Your task to perform on an android device: Add logitech g910 to the cart on target Image 0: 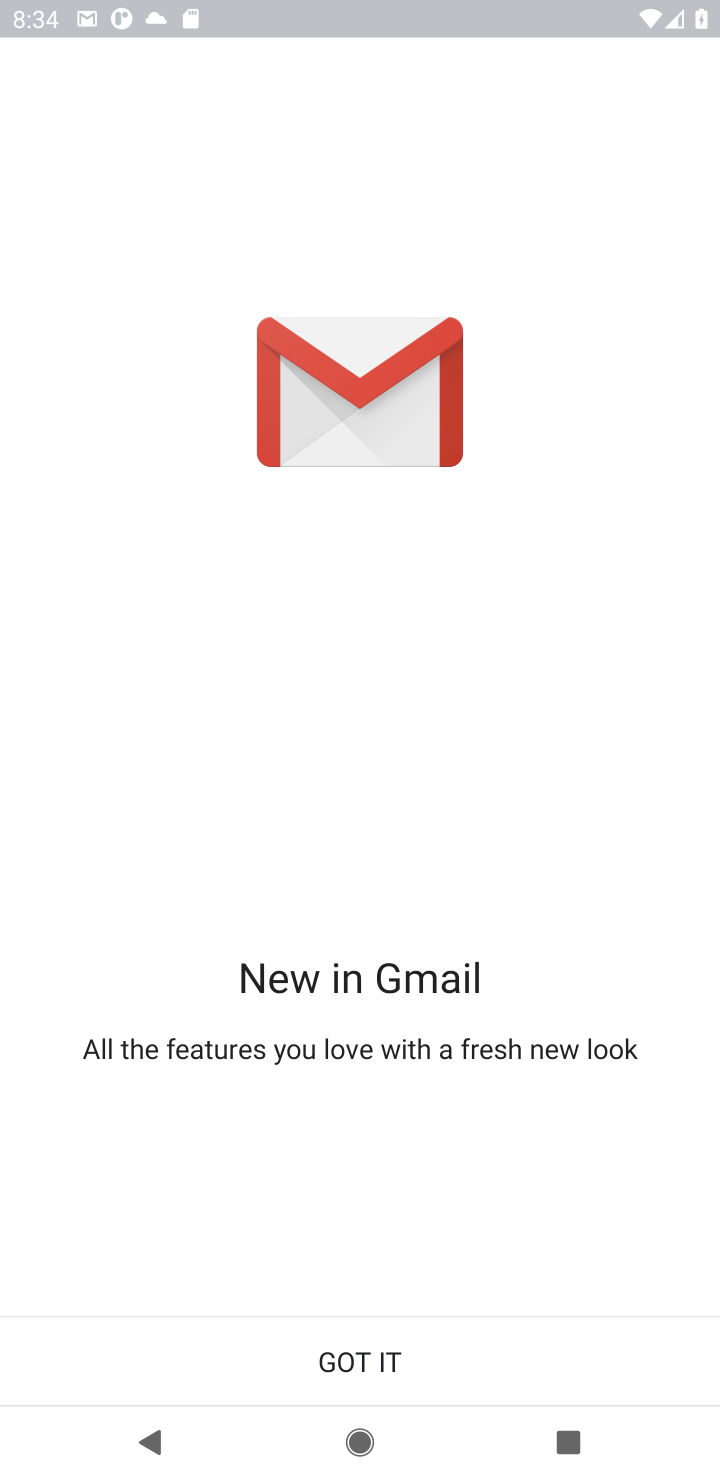
Step 0: press home button
Your task to perform on an android device: Add logitech g910 to the cart on target Image 1: 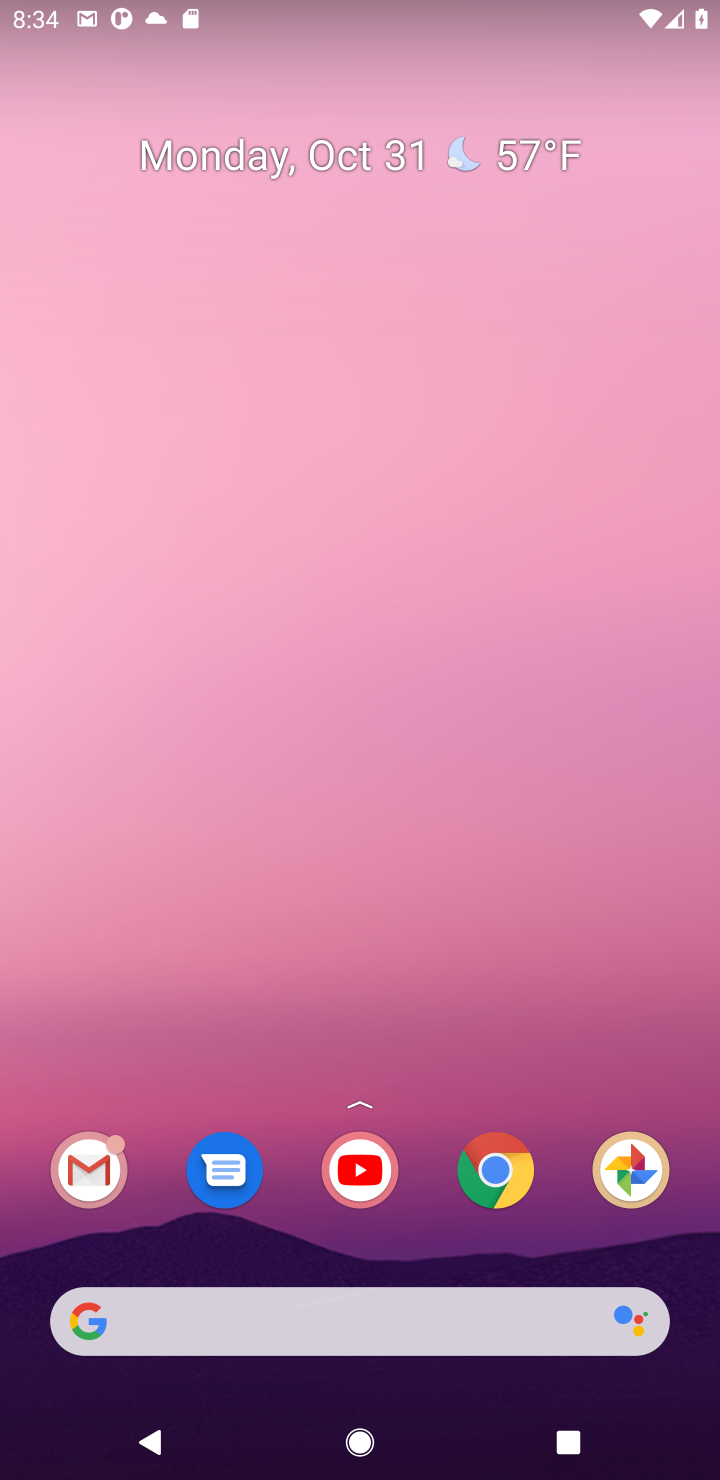
Step 1: click (514, 1153)
Your task to perform on an android device: Add logitech g910 to the cart on target Image 2: 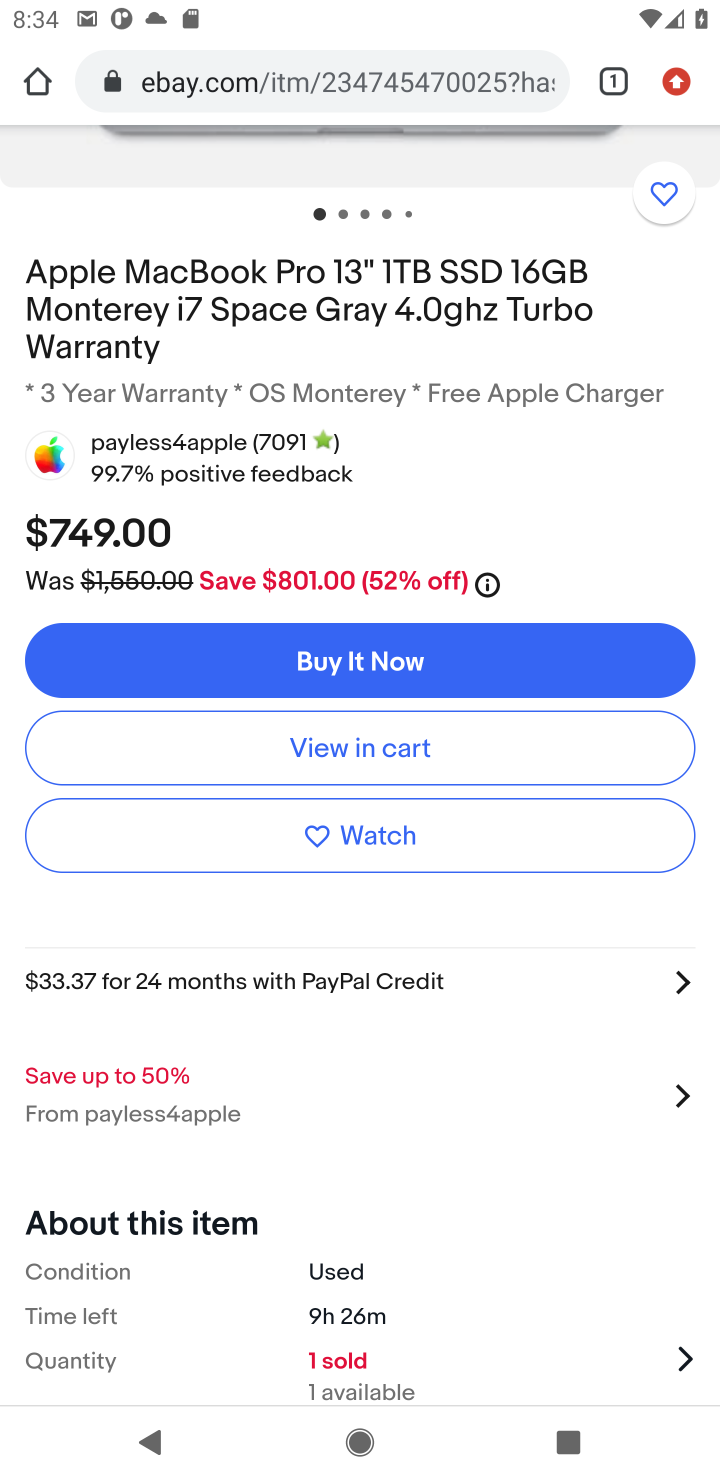
Step 2: click (331, 65)
Your task to perform on an android device: Add logitech g910 to the cart on target Image 3: 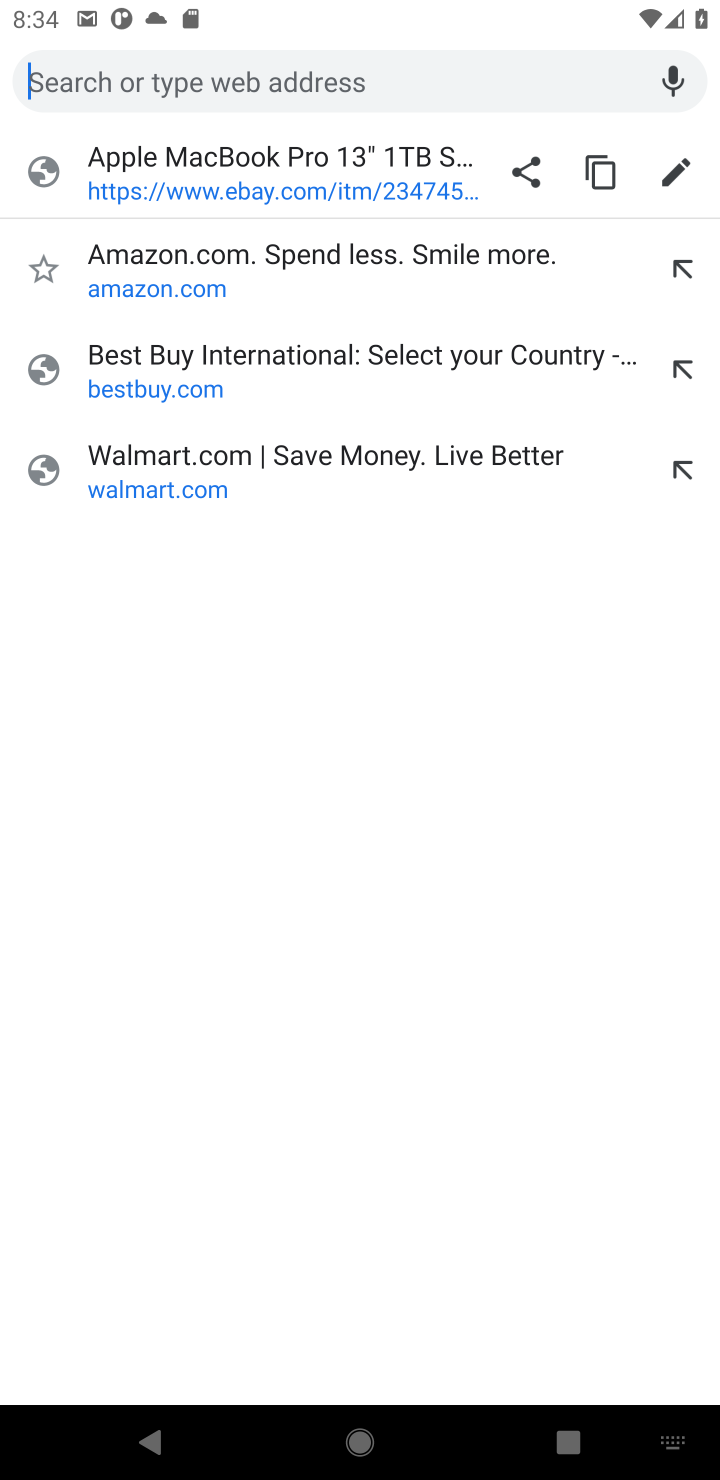
Step 3: type "target"
Your task to perform on an android device: Add logitech g910 to the cart on target Image 4: 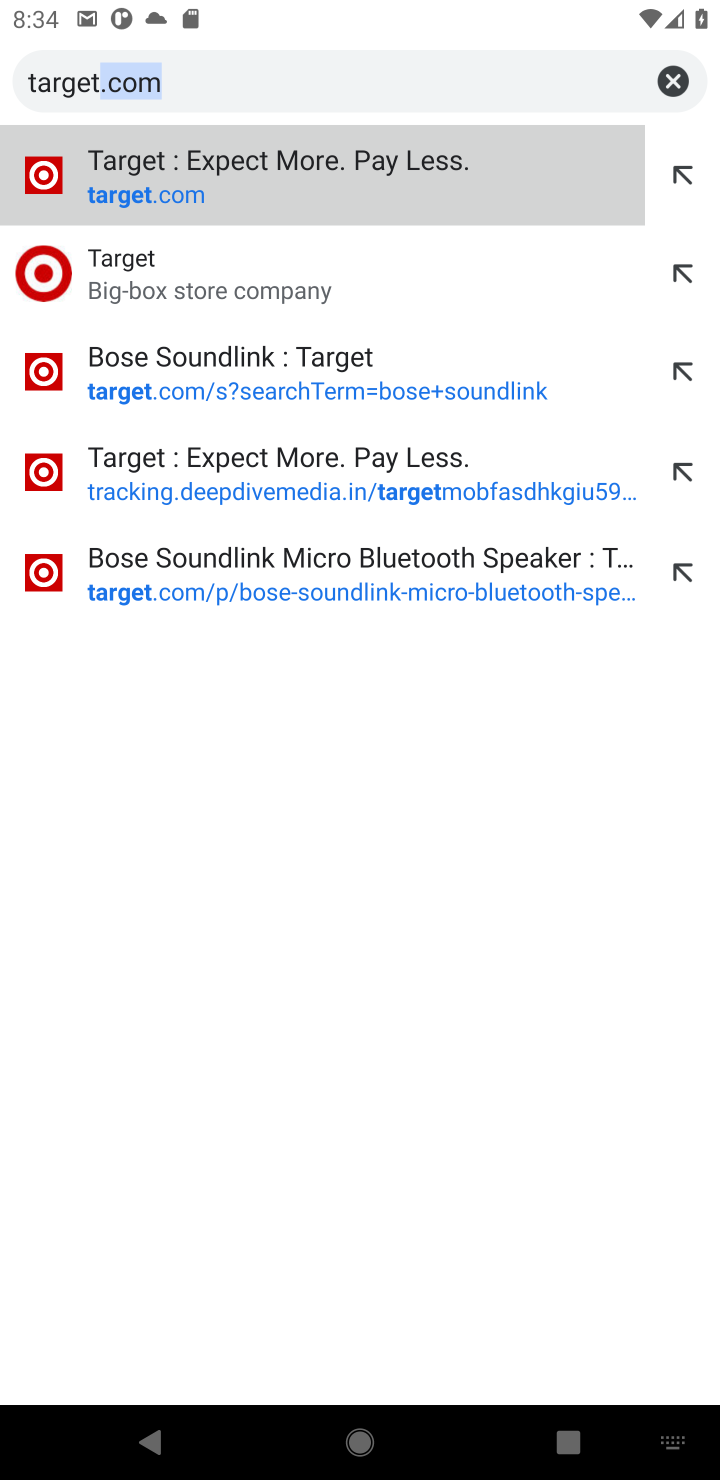
Step 4: click (237, 288)
Your task to perform on an android device: Add logitech g910 to the cart on target Image 5: 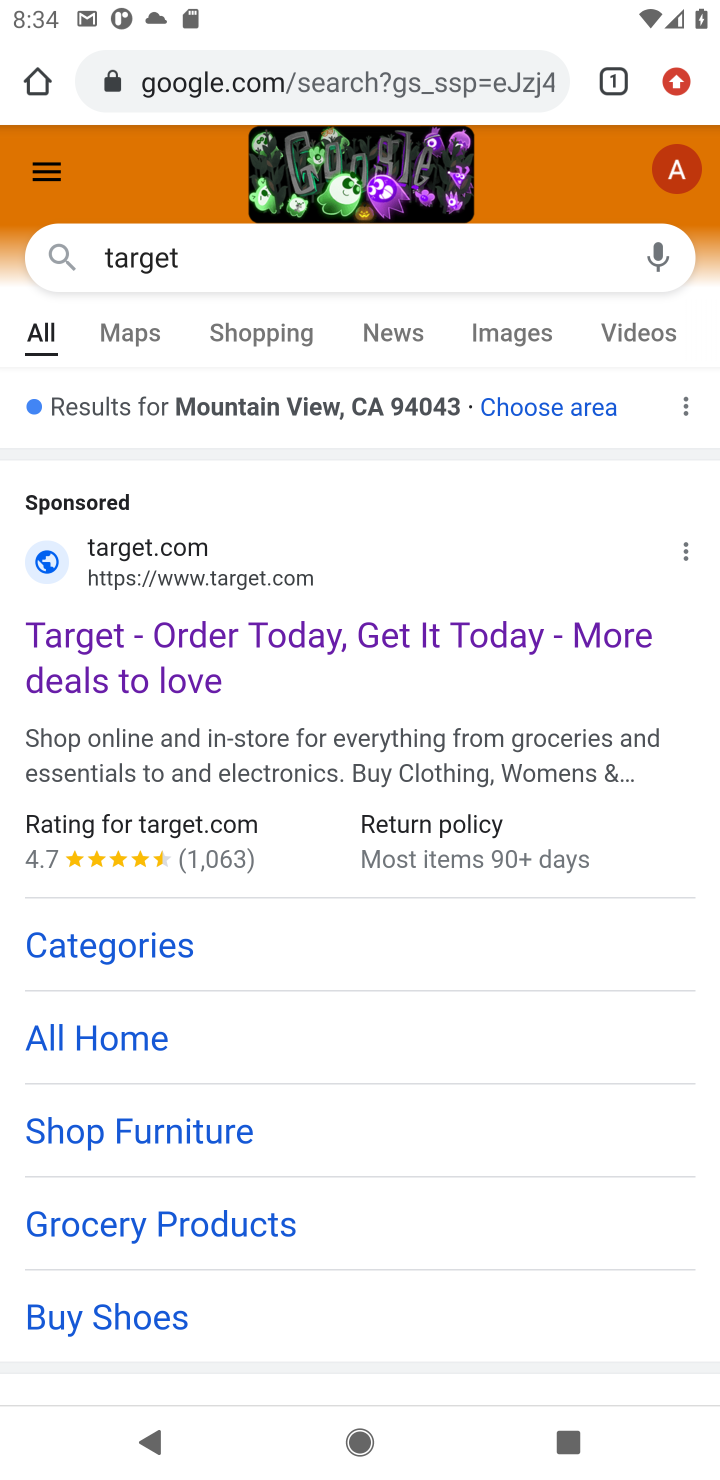
Step 5: click (159, 666)
Your task to perform on an android device: Add logitech g910 to the cart on target Image 6: 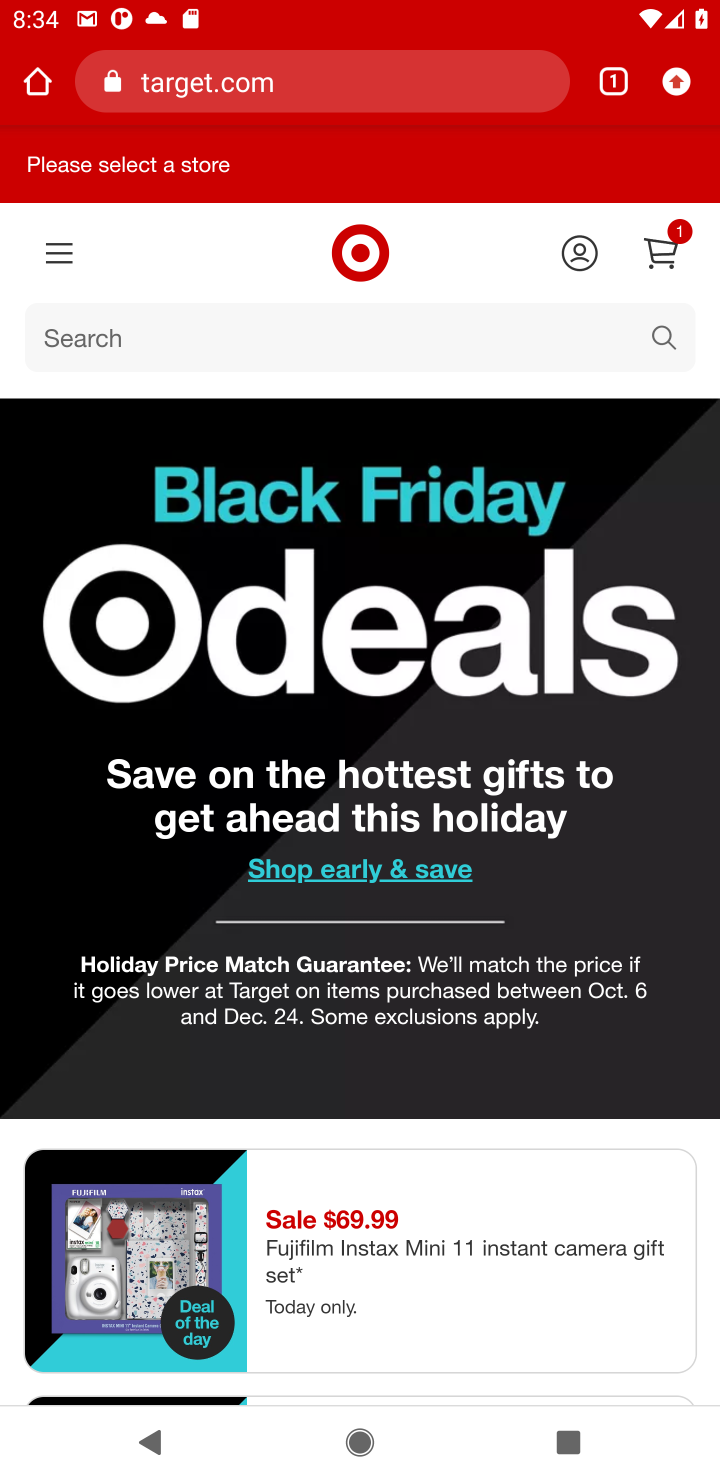
Step 6: click (252, 330)
Your task to perform on an android device: Add logitech g910 to the cart on target Image 7: 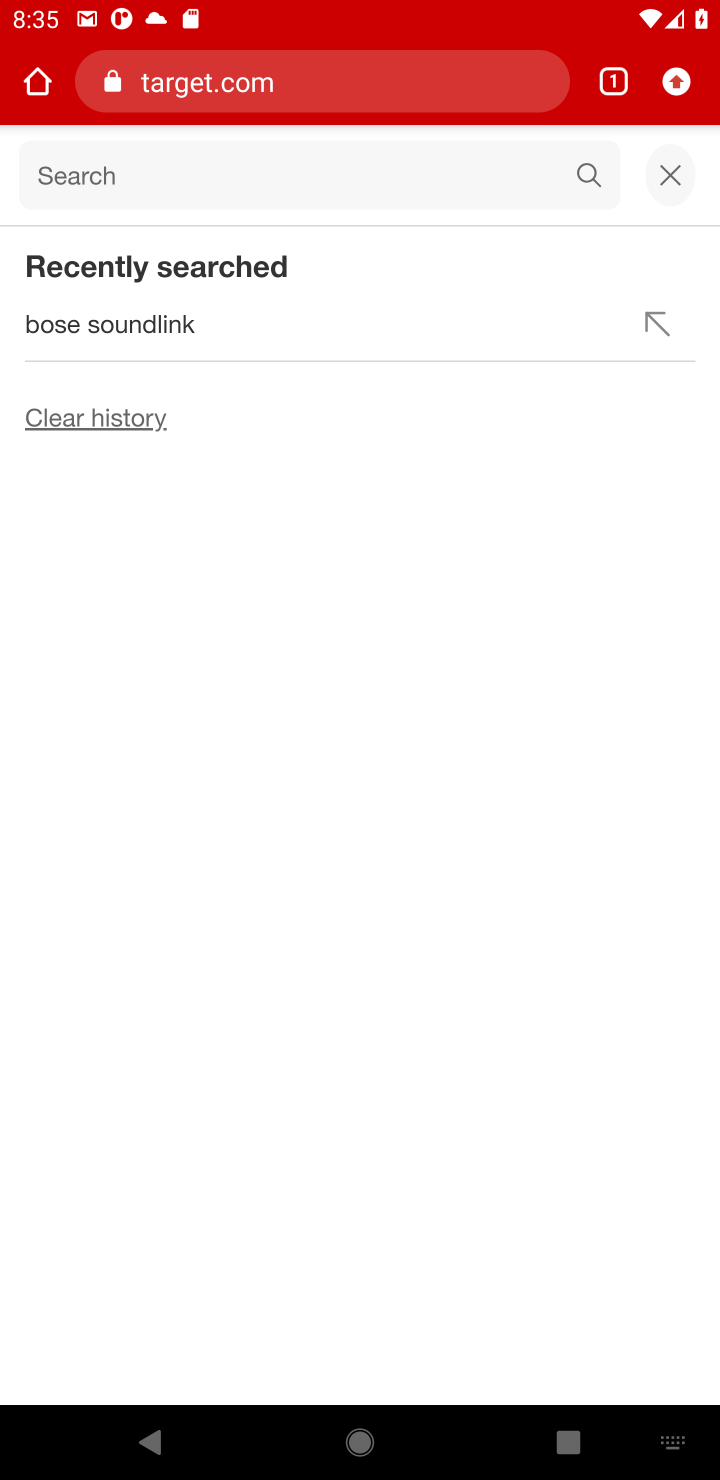
Step 7: type "logitech g910 "
Your task to perform on an android device: Add logitech g910 to the cart on target Image 8: 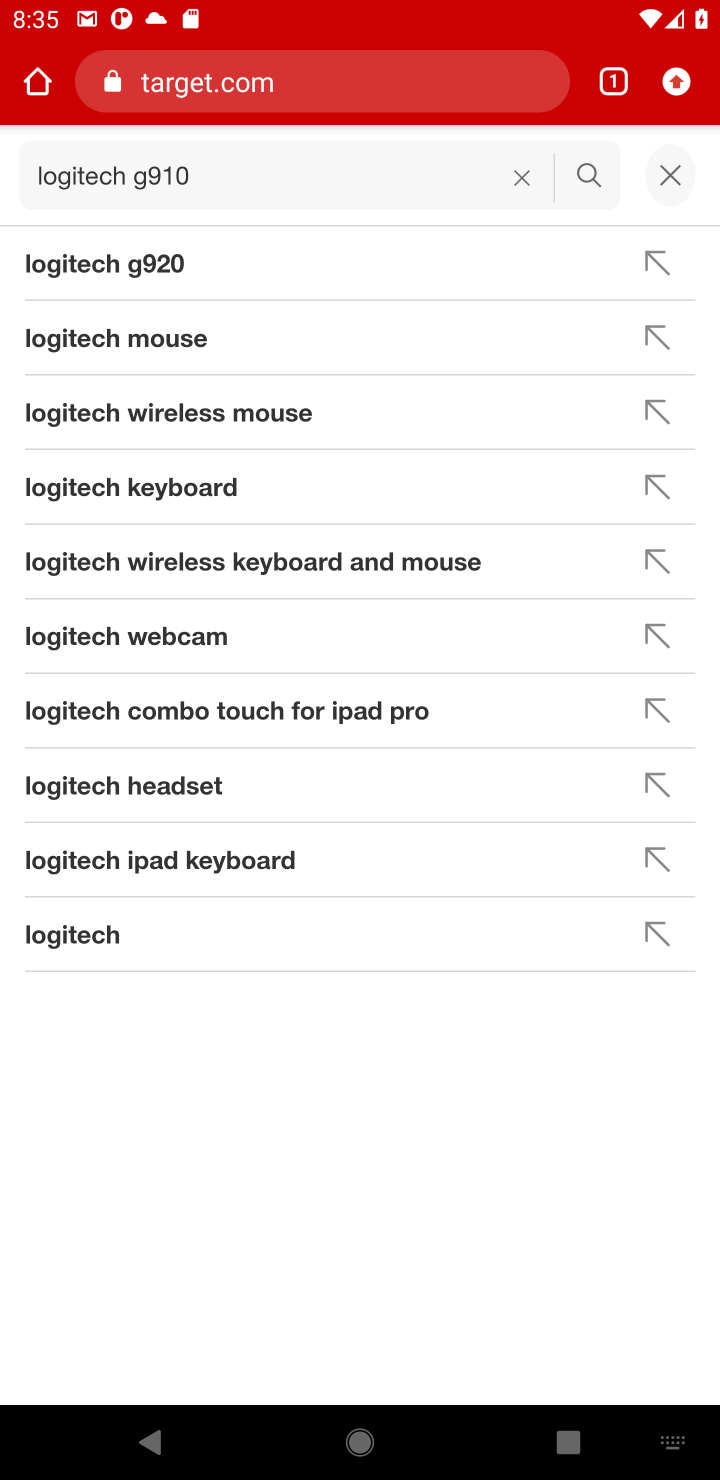
Step 8: click (584, 186)
Your task to perform on an android device: Add logitech g910 to the cart on target Image 9: 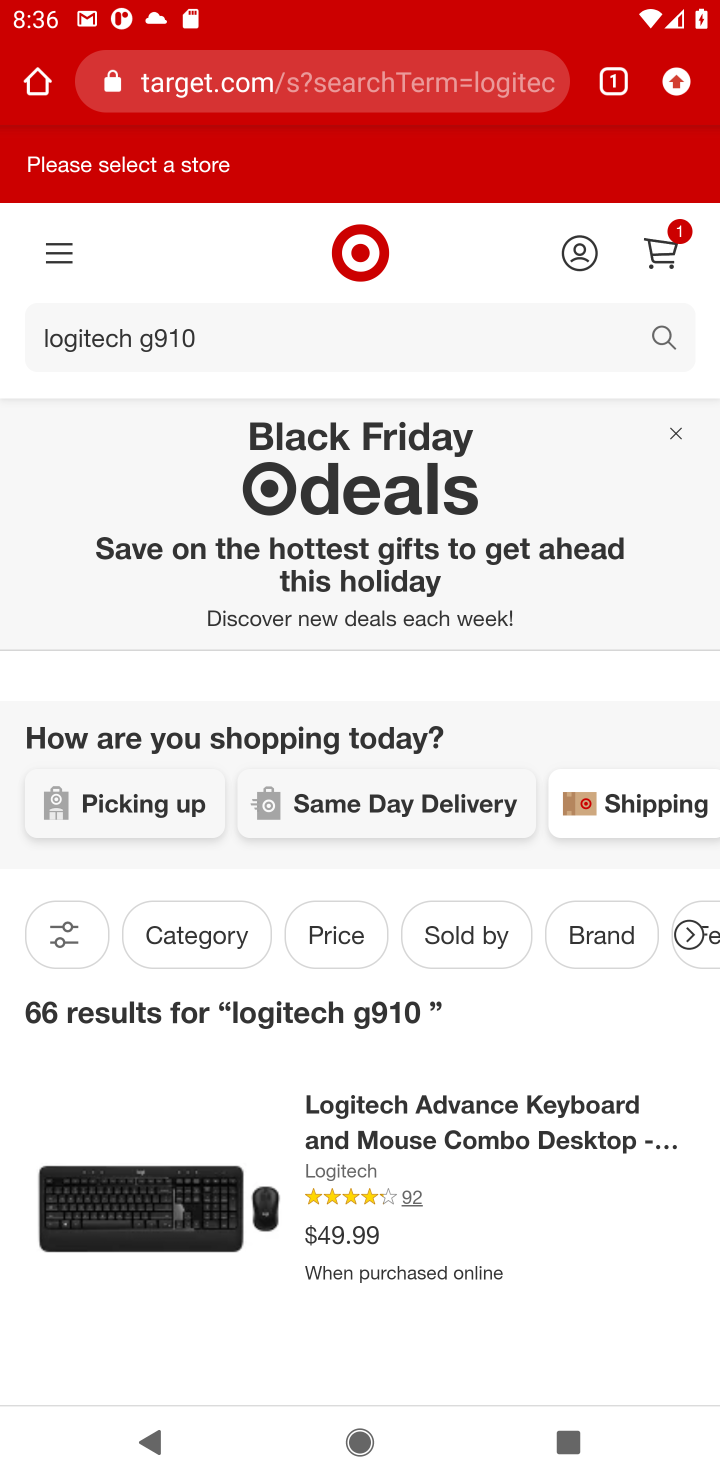
Step 9: click (538, 1132)
Your task to perform on an android device: Add logitech g910 to the cart on target Image 10: 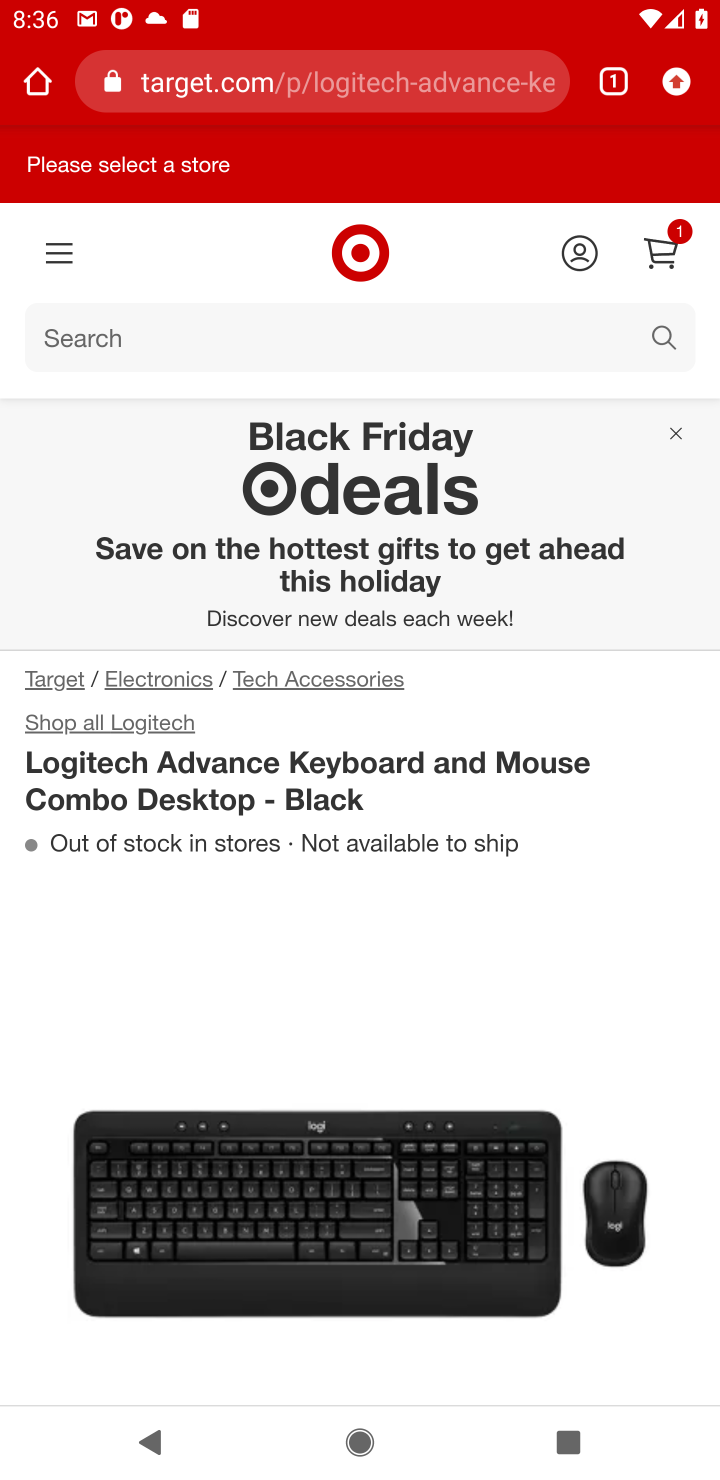
Step 10: click (239, 1250)
Your task to perform on an android device: Add logitech g910 to the cart on target Image 11: 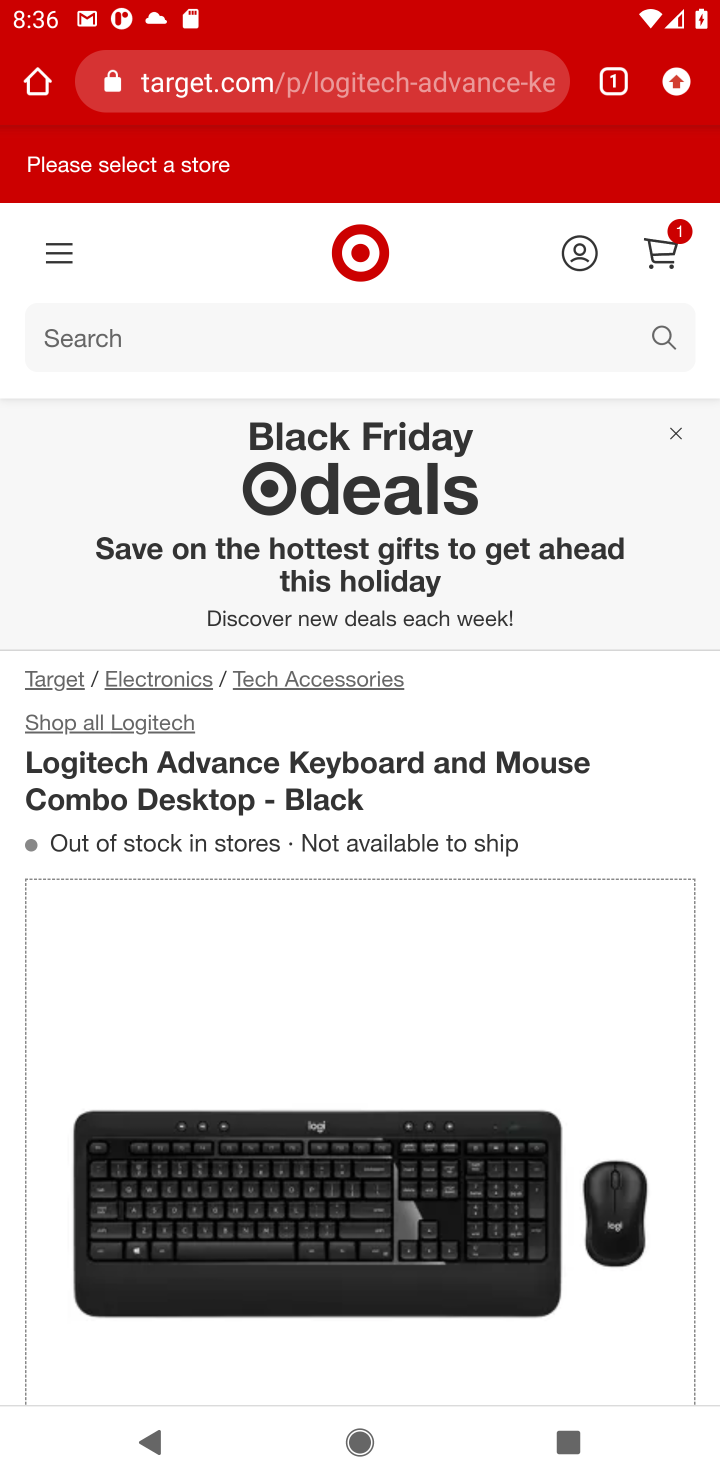
Step 11: click (239, 1250)
Your task to perform on an android device: Add logitech g910 to the cart on target Image 12: 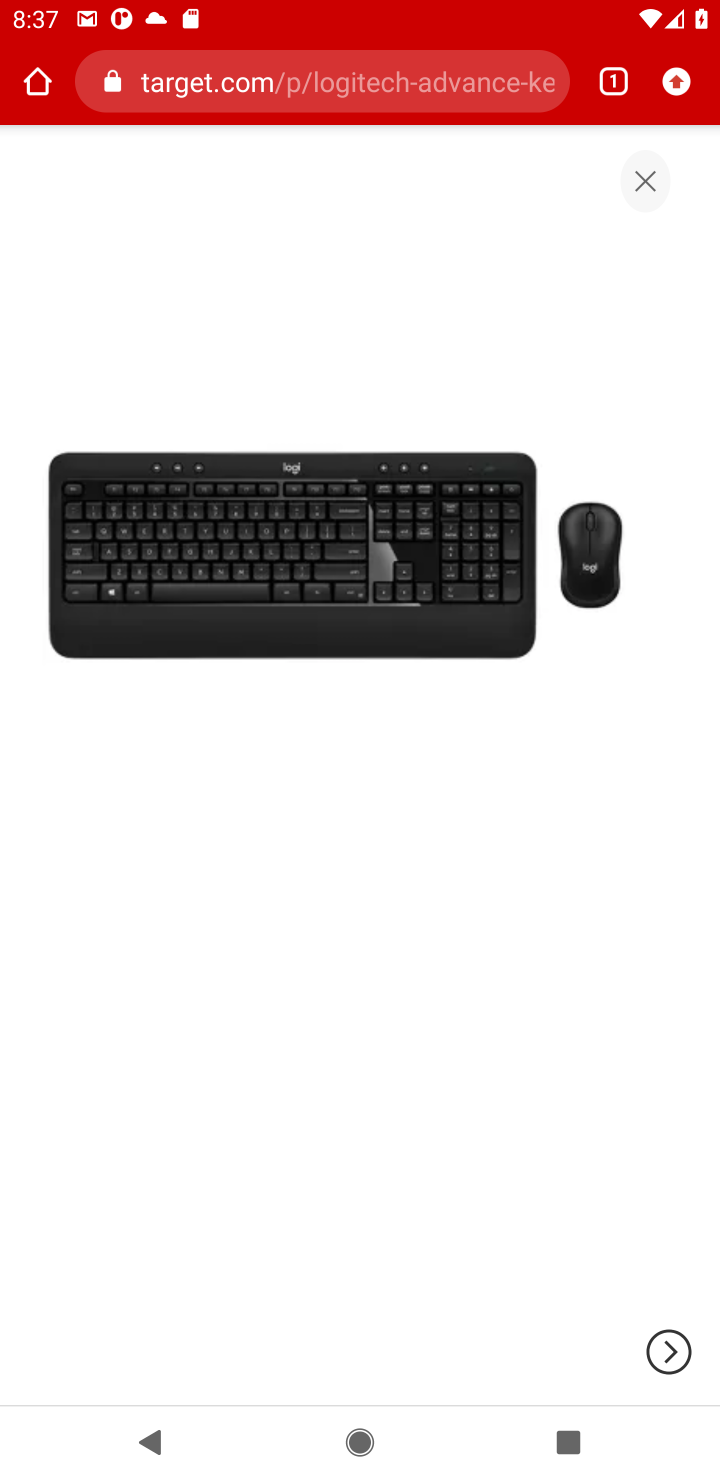
Step 12: click (239, 1250)
Your task to perform on an android device: Add logitech g910 to the cart on target Image 13: 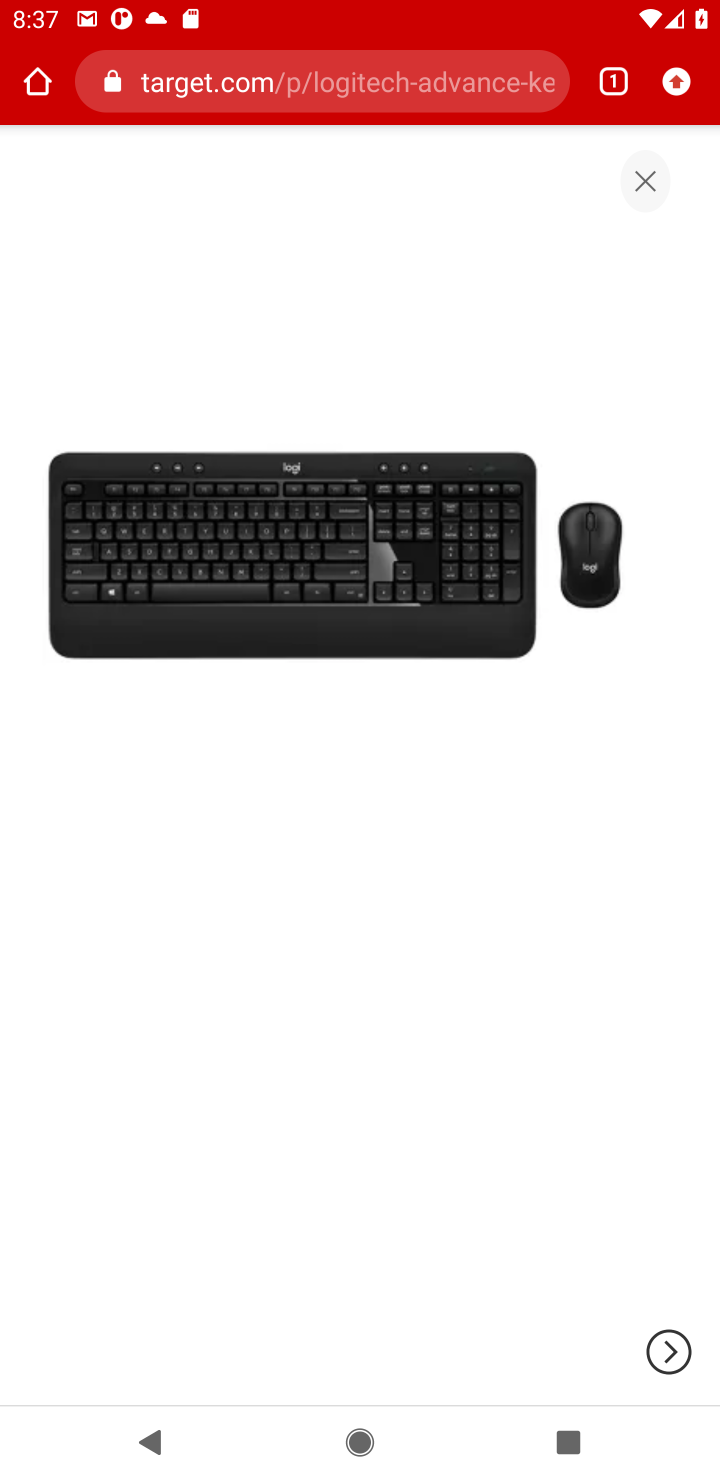
Step 13: click (239, 1250)
Your task to perform on an android device: Add logitech g910 to the cart on target Image 14: 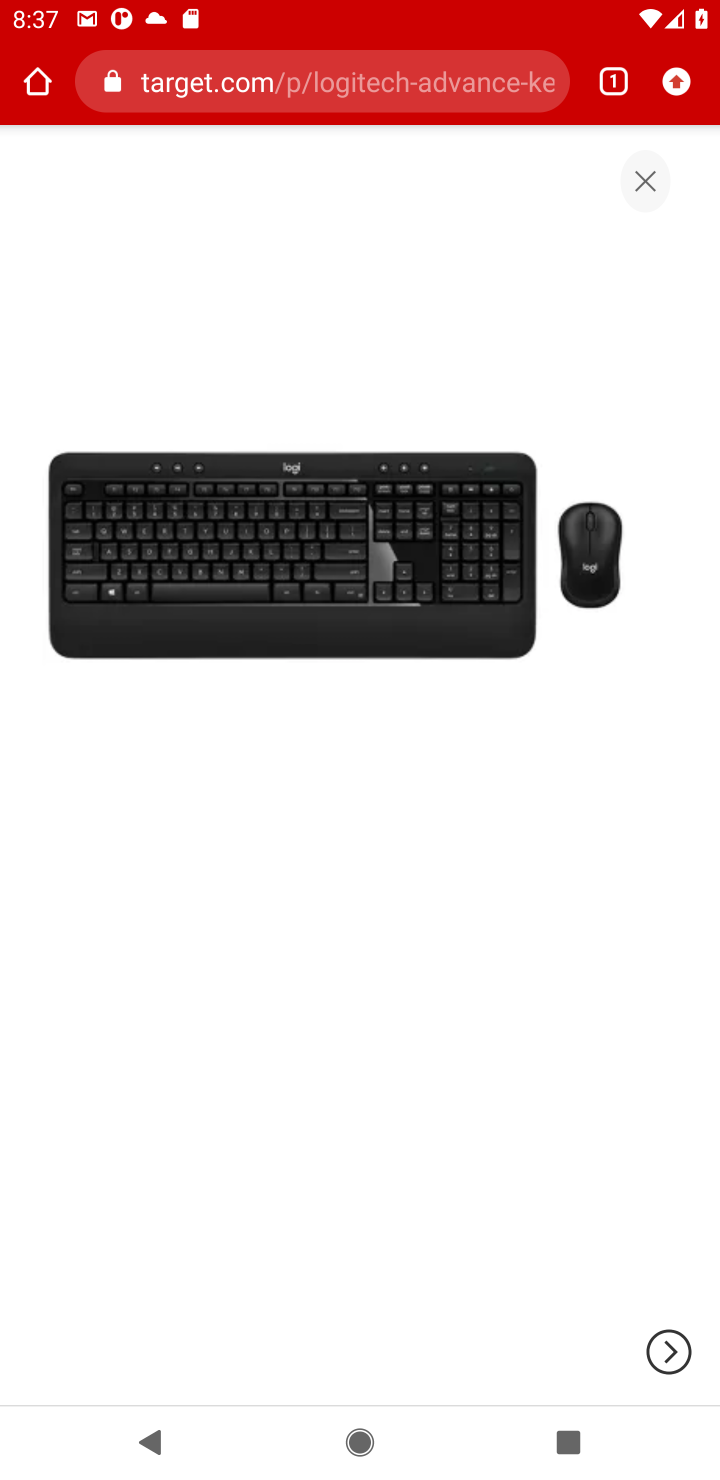
Step 14: click (239, 1250)
Your task to perform on an android device: Add logitech g910 to the cart on target Image 15: 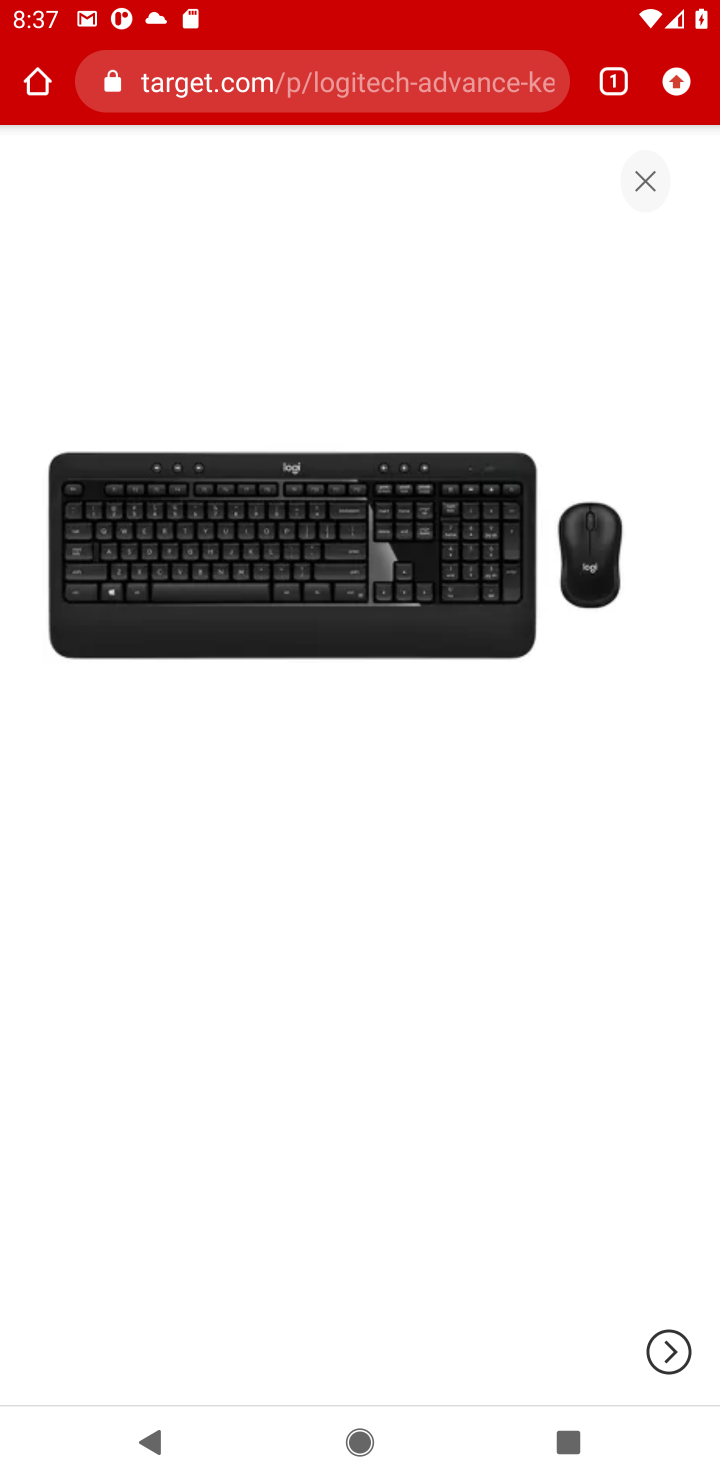
Step 15: click (643, 181)
Your task to perform on an android device: Add logitech g910 to the cart on target Image 16: 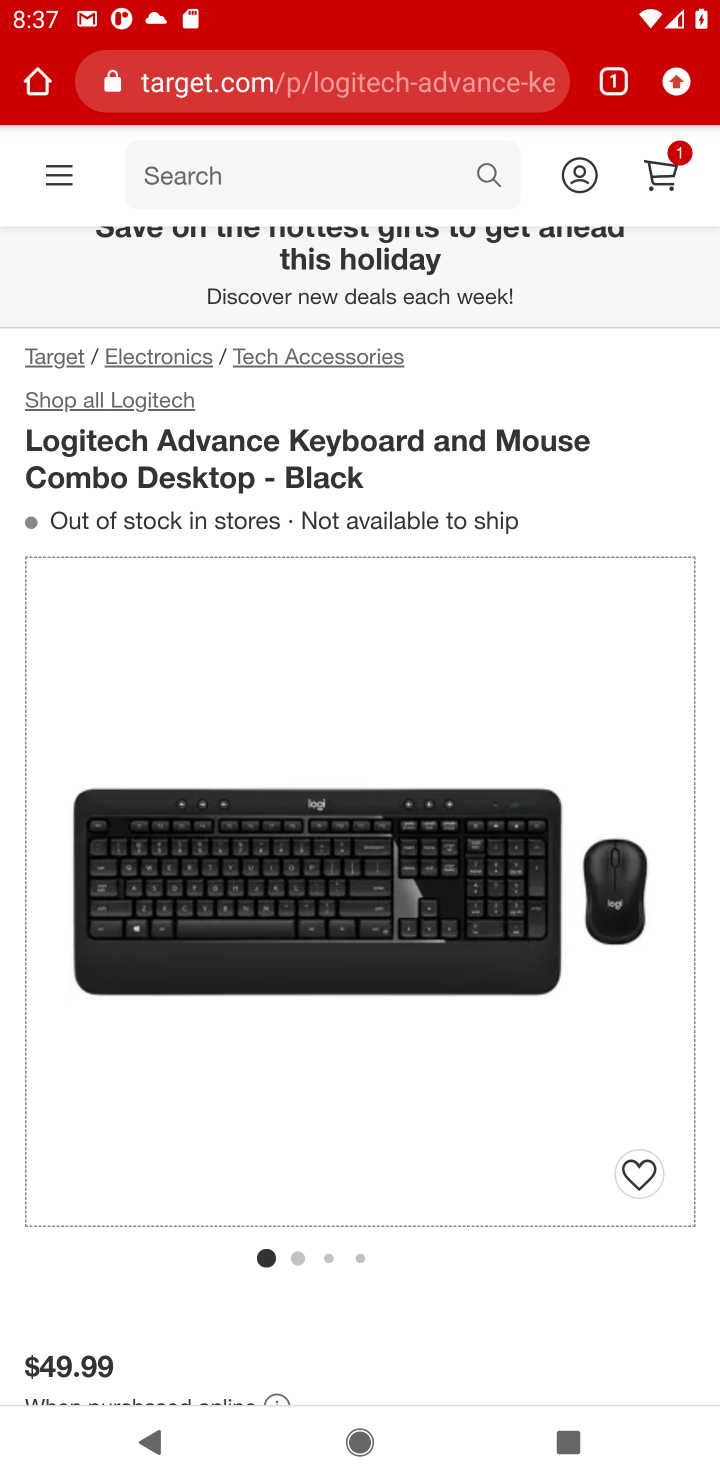
Step 16: drag from (225, 1319) to (448, 449)
Your task to perform on an android device: Add logitech g910 to the cart on target Image 17: 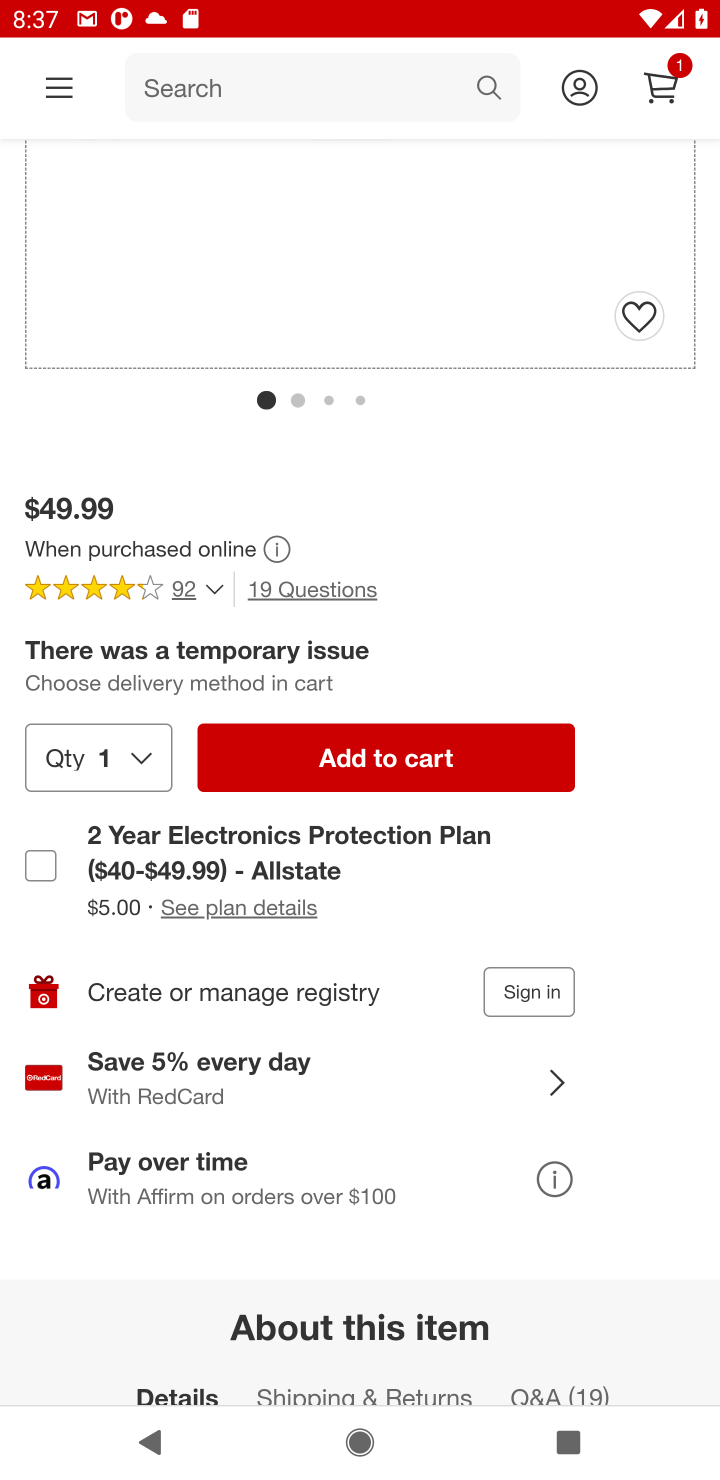
Step 17: click (461, 777)
Your task to perform on an android device: Add logitech g910 to the cart on target Image 18: 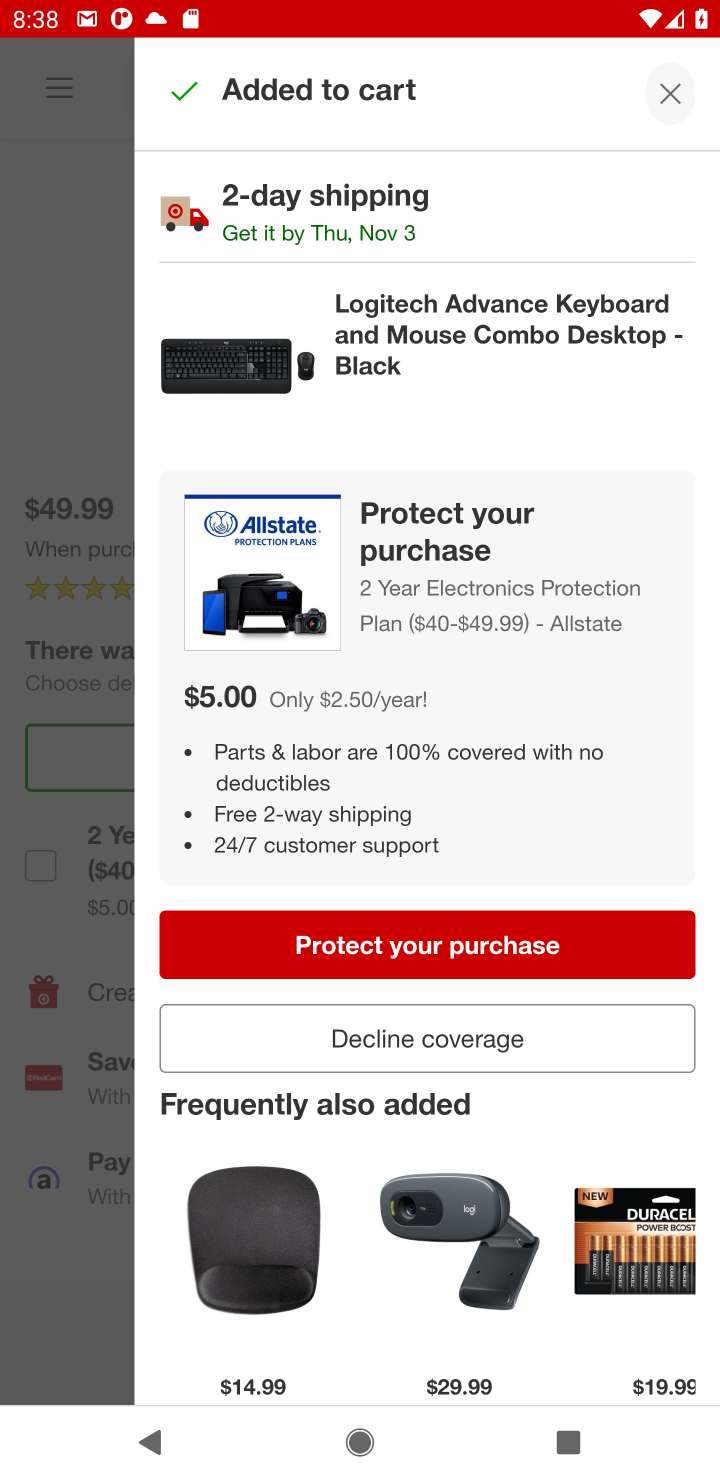
Step 18: task complete